Your task to perform on an android device: Search for Mexican restaurants on Maps Image 0: 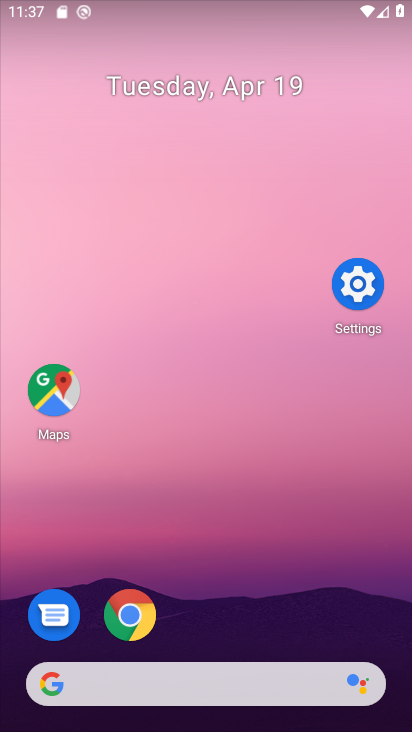
Step 0: drag from (236, 177) to (208, 0)
Your task to perform on an android device: Search for Mexican restaurants on Maps Image 1: 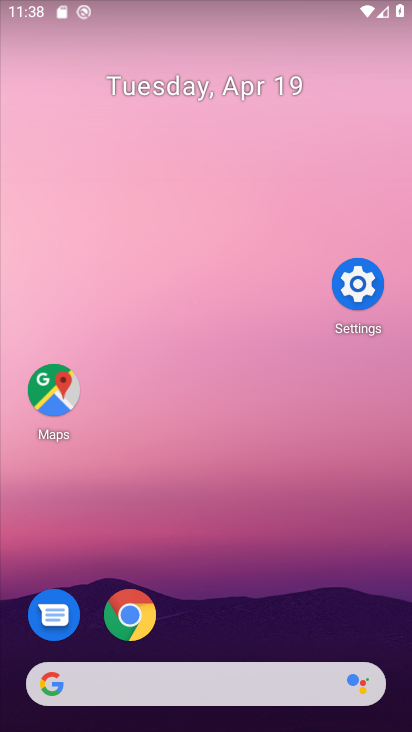
Step 1: click (49, 396)
Your task to perform on an android device: Search for Mexican restaurants on Maps Image 2: 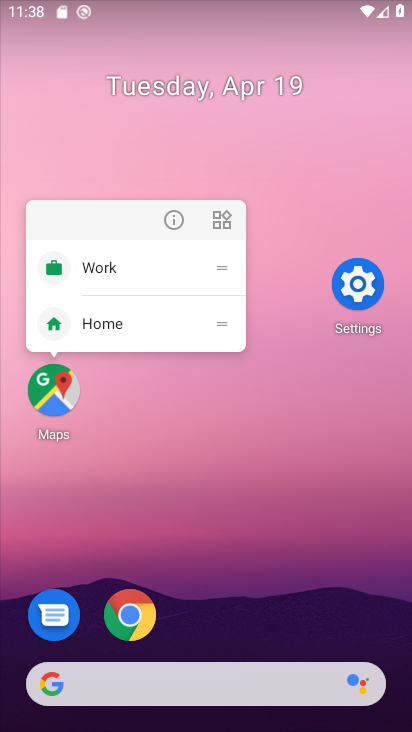
Step 2: click (163, 223)
Your task to perform on an android device: Search for Mexican restaurants on Maps Image 3: 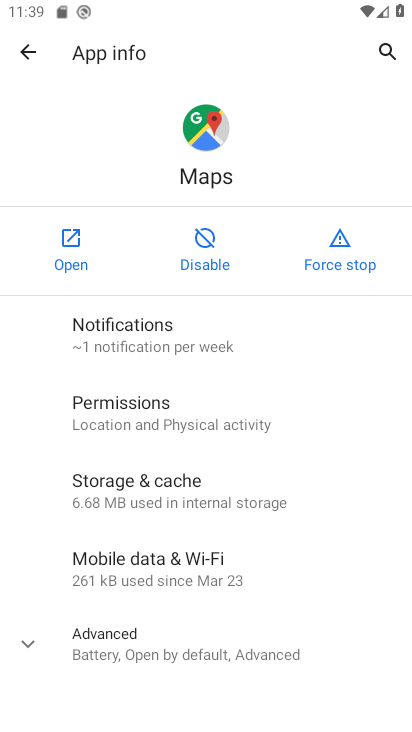
Step 3: click (64, 262)
Your task to perform on an android device: Search for Mexican restaurants on Maps Image 4: 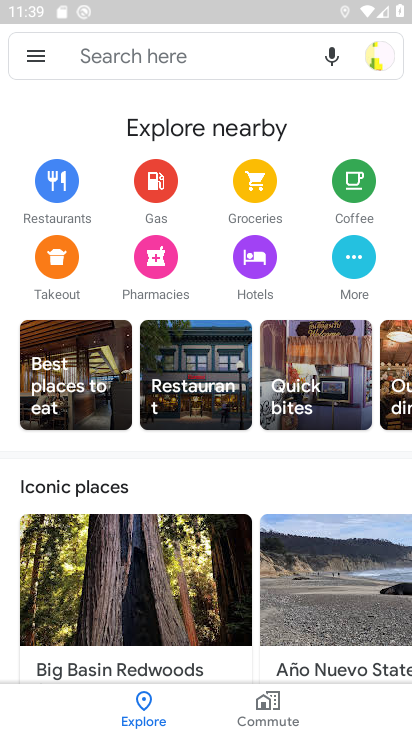
Step 4: click (140, 60)
Your task to perform on an android device: Search for Mexican restaurants on Maps Image 5: 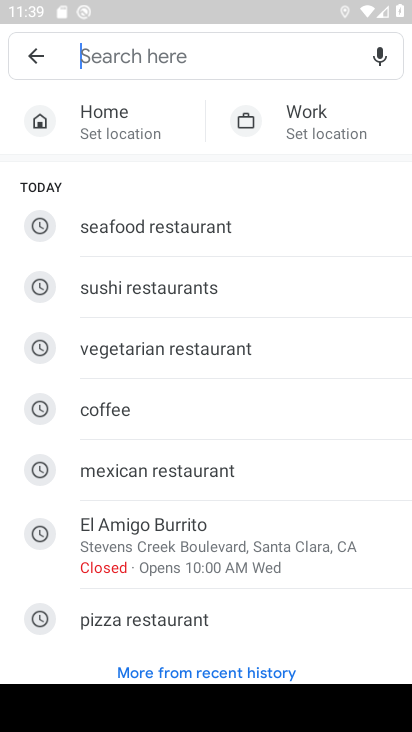
Step 5: click (164, 473)
Your task to perform on an android device: Search for Mexican restaurants on Maps Image 6: 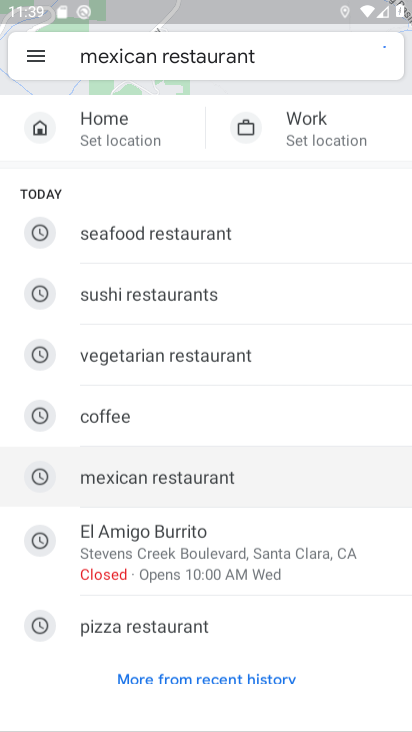
Step 6: task complete